Your task to perform on an android device: toggle translation in the chrome app Image 0: 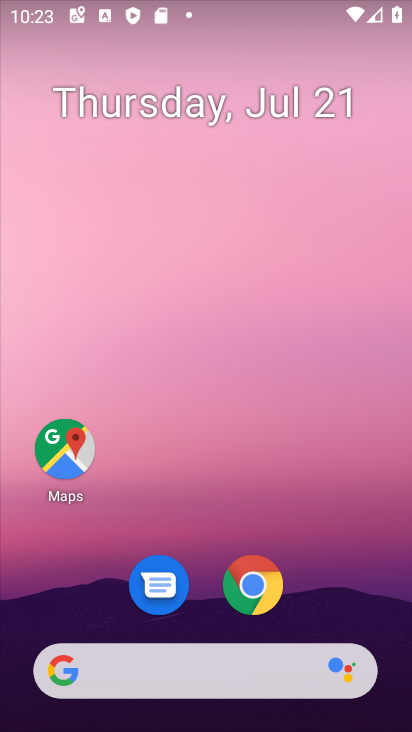
Step 0: click (258, 580)
Your task to perform on an android device: toggle translation in the chrome app Image 1: 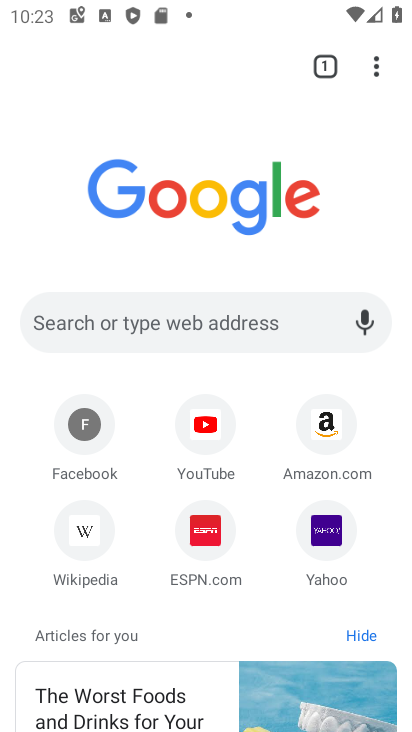
Step 1: click (373, 65)
Your task to perform on an android device: toggle translation in the chrome app Image 2: 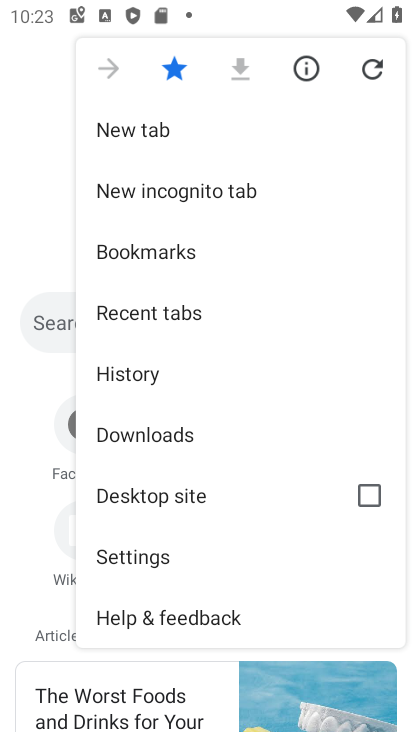
Step 2: click (157, 563)
Your task to perform on an android device: toggle translation in the chrome app Image 3: 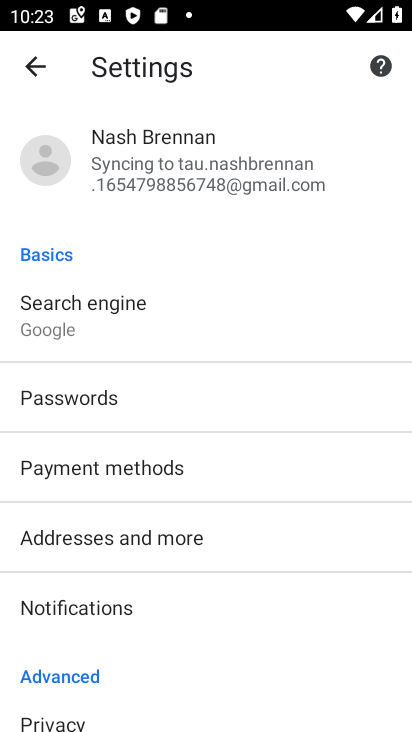
Step 3: drag from (227, 597) to (223, 291)
Your task to perform on an android device: toggle translation in the chrome app Image 4: 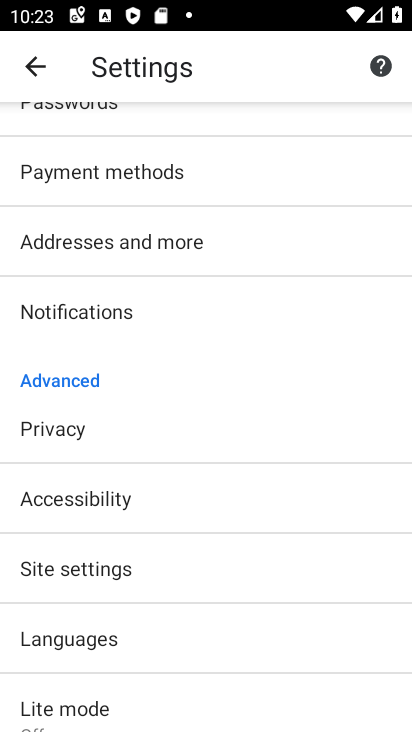
Step 4: click (190, 642)
Your task to perform on an android device: toggle translation in the chrome app Image 5: 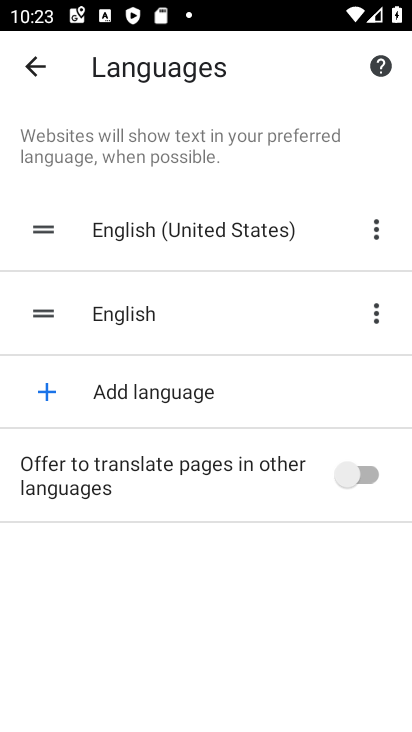
Step 5: click (367, 477)
Your task to perform on an android device: toggle translation in the chrome app Image 6: 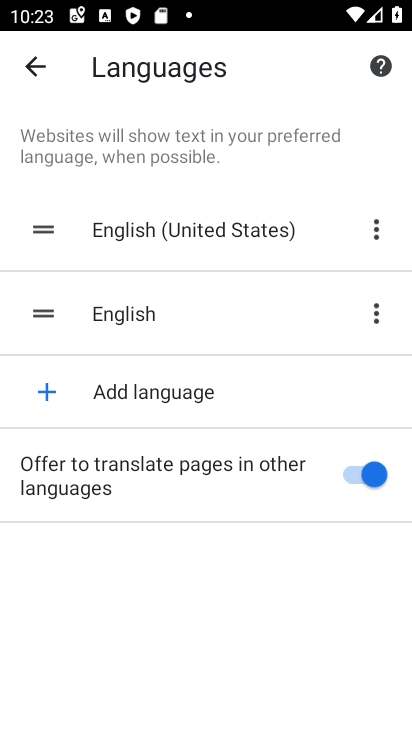
Step 6: task complete